Your task to perform on an android device: Search for macbook on newegg.com, select the first entry, add it to the cart, then select checkout. Image 0: 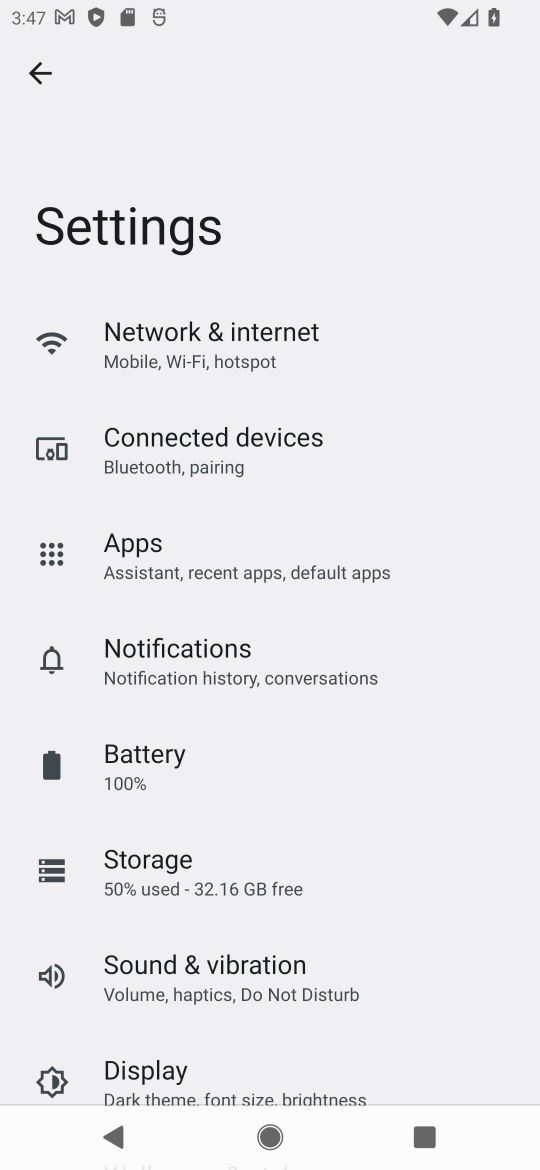
Step 0: press home button
Your task to perform on an android device: Search for macbook on newegg.com, select the first entry, add it to the cart, then select checkout. Image 1: 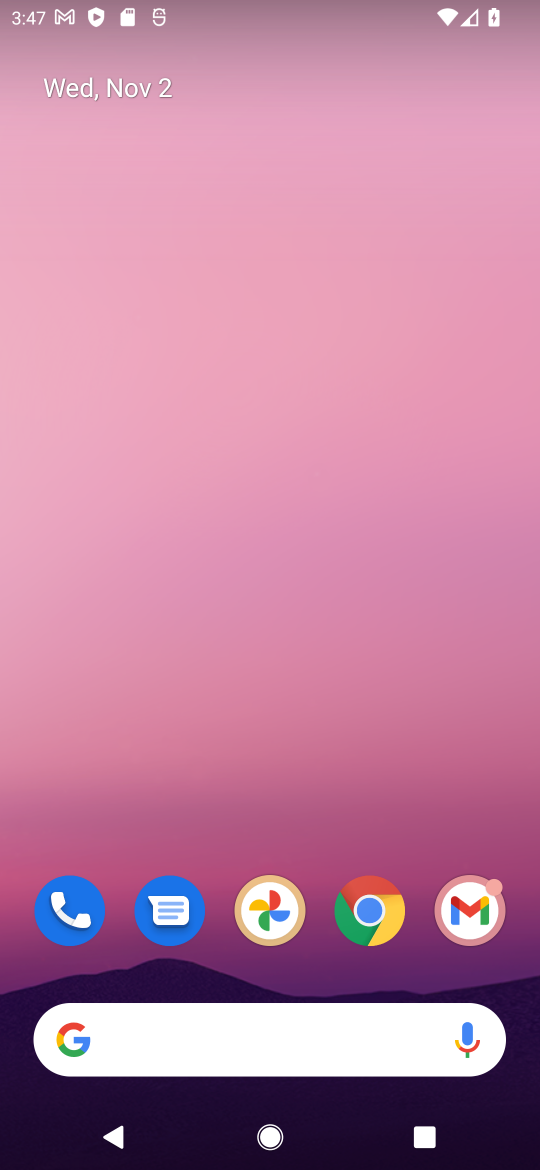
Step 1: press home button
Your task to perform on an android device: Search for macbook on newegg.com, select the first entry, add it to the cart, then select checkout. Image 2: 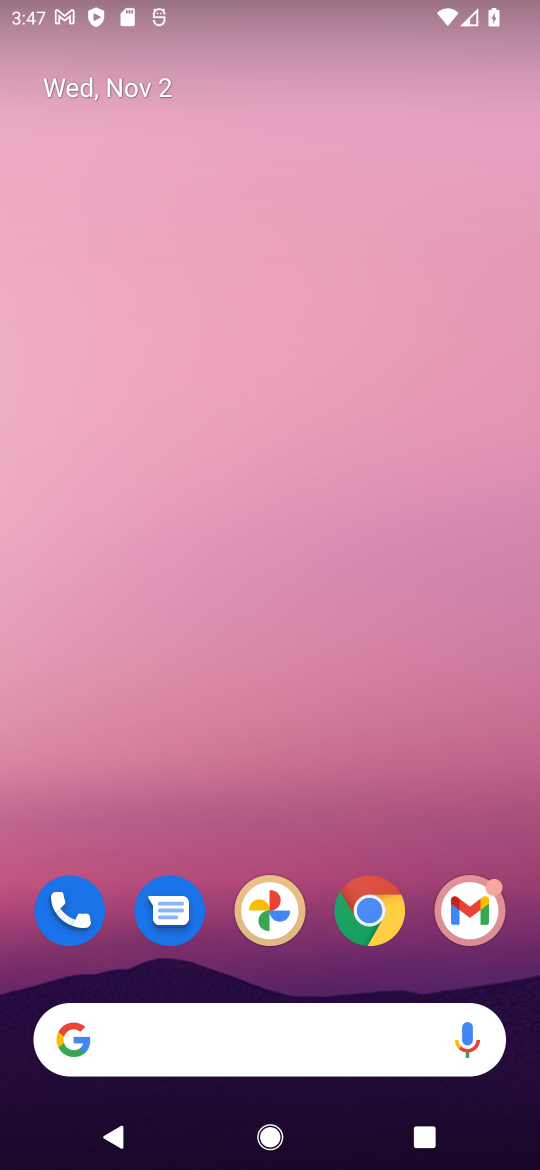
Step 2: click (377, 887)
Your task to perform on an android device: Search for macbook on newegg.com, select the first entry, add it to the cart, then select checkout. Image 3: 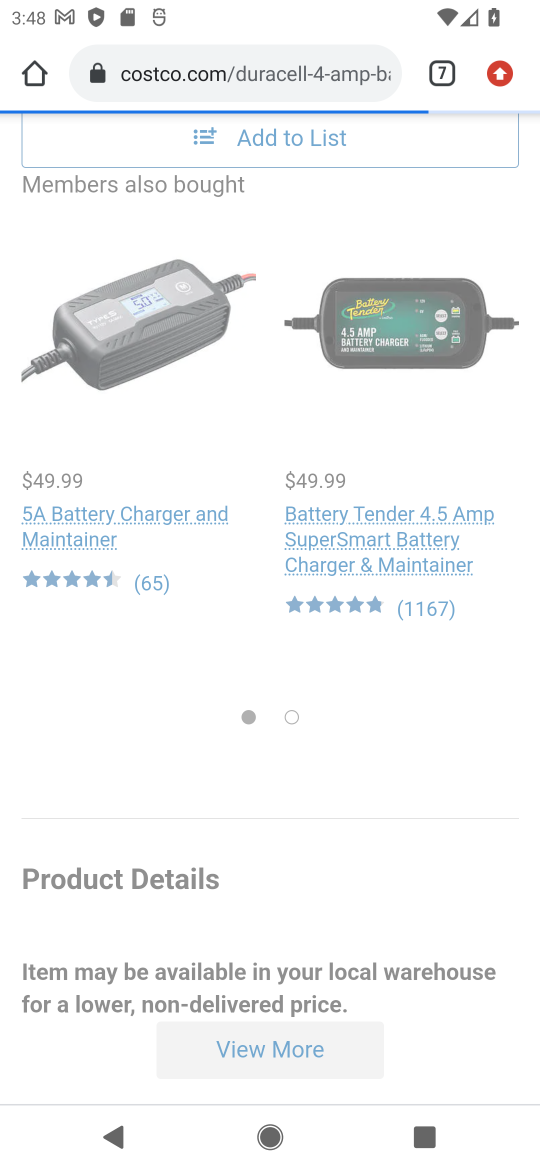
Step 3: click (441, 82)
Your task to perform on an android device: Search for macbook on newegg.com, select the first entry, add it to the cart, then select checkout. Image 4: 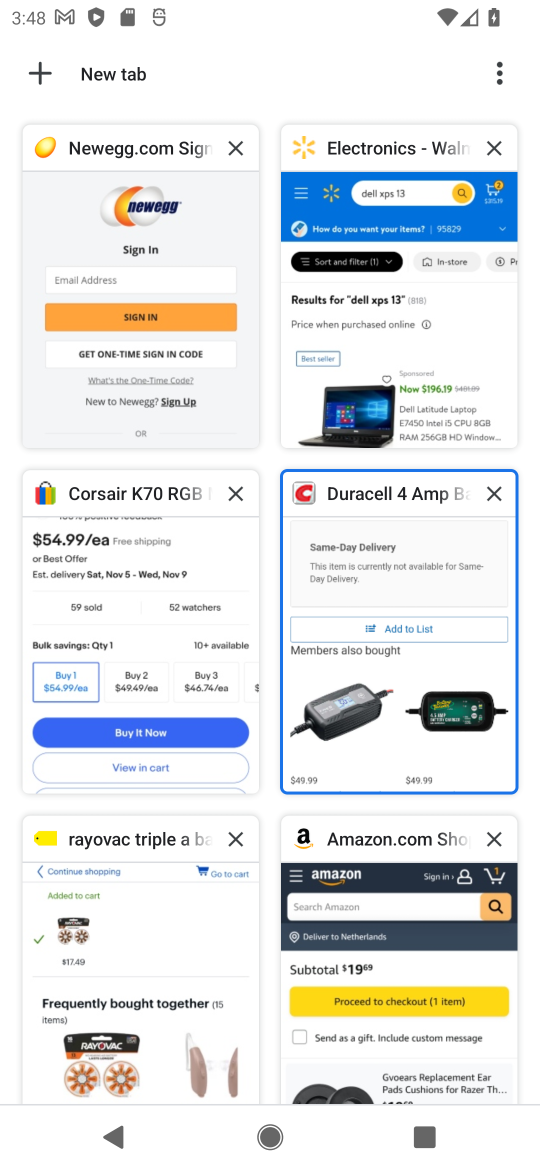
Step 4: click (175, 252)
Your task to perform on an android device: Search for macbook on newegg.com, select the first entry, add it to the cart, then select checkout. Image 5: 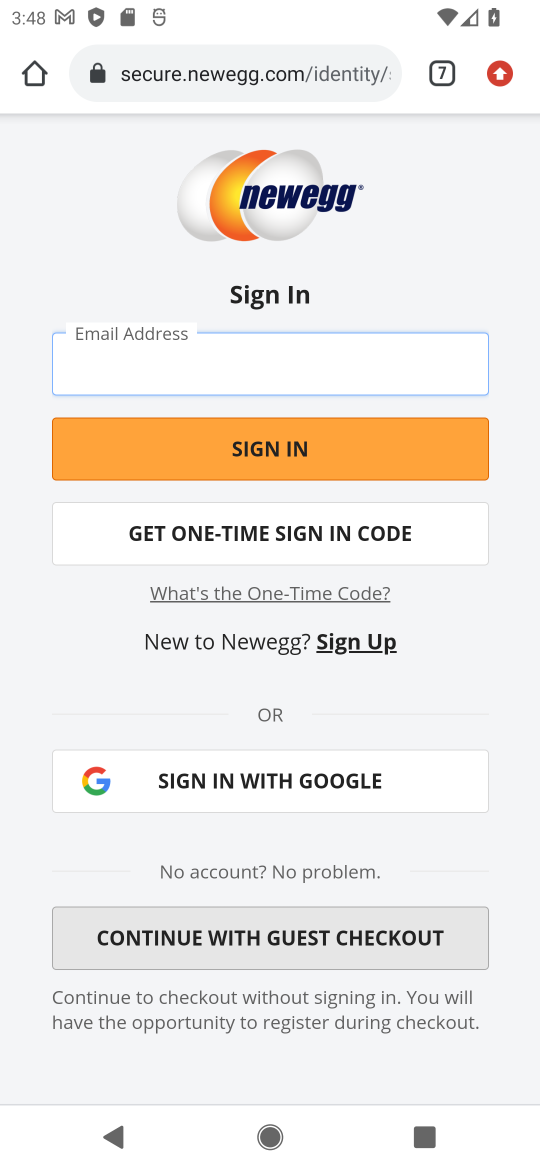
Step 5: press back button
Your task to perform on an android device: Search for macbook on newegg.com, select the first entry, add it to the cart, then select checkout. Image 6: 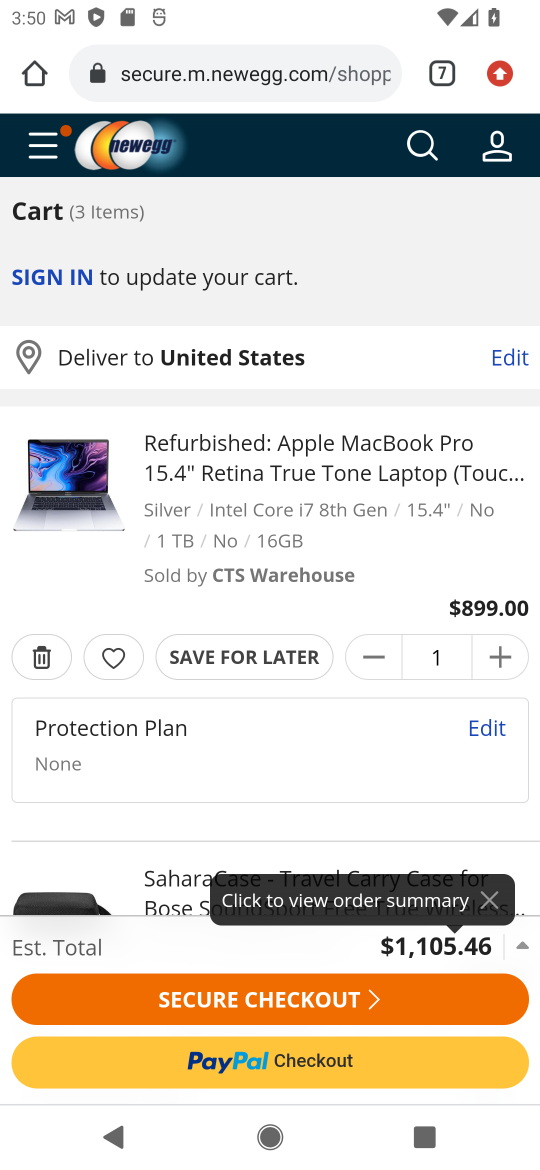
Step 6: click (420, 142)
Your task to perform on an android device: Search for macbook on newegg.com, select the first entry, add it to the cart, then select checkout. Image 7: 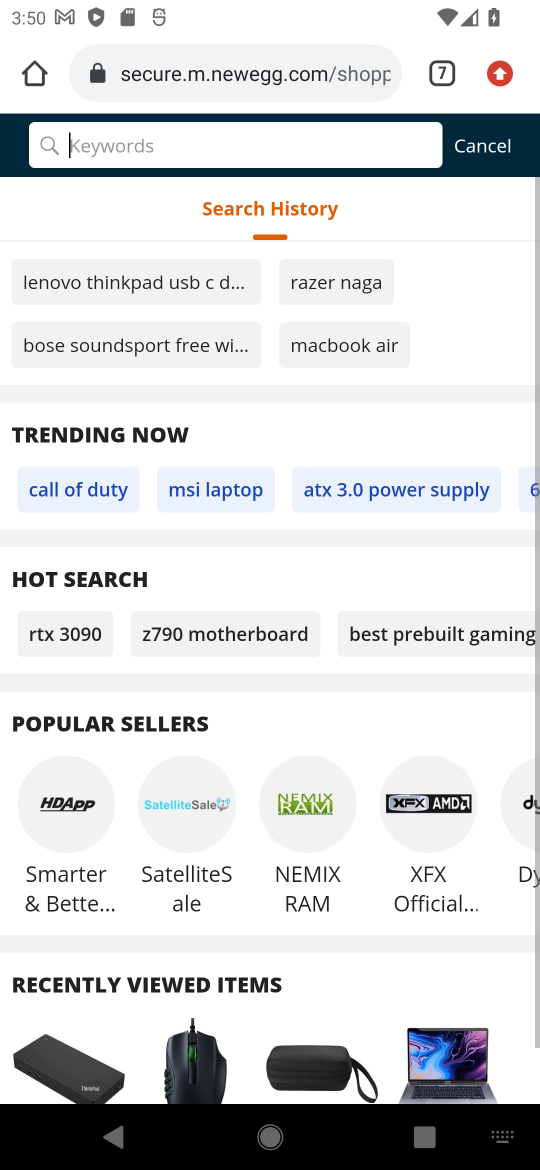
Step 7: type "macbook"
Your task to perform on an android device: Search for macbook on newegg.com, select the first entry, add it to the cart, then select checkout. Image 8: 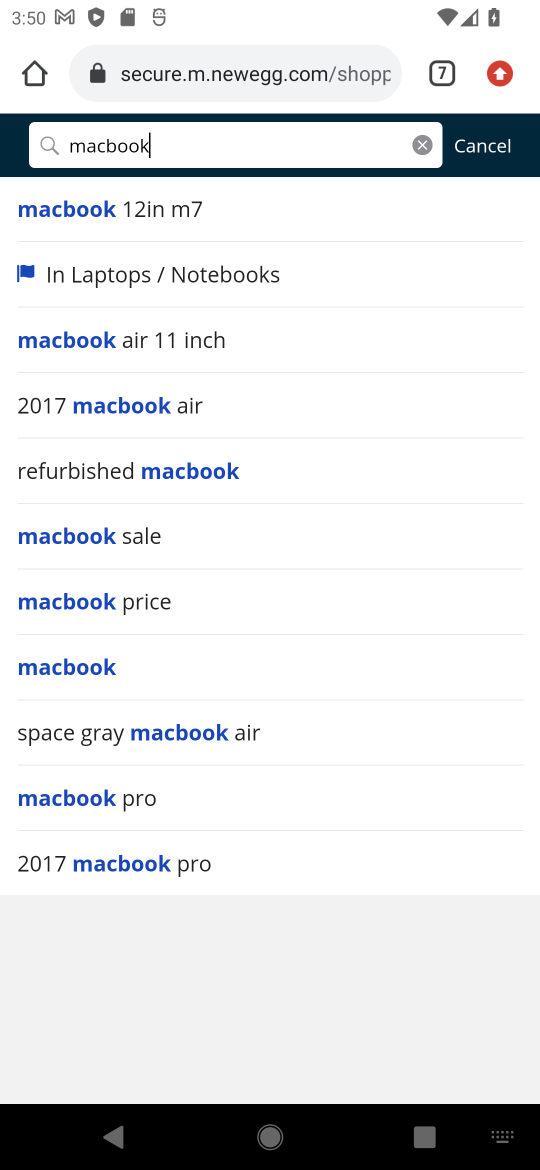
Step 8: click (95, 276)
Your task to perform on an android device: Search for macbook on newegg.com, select the first entry, add it to the cart, then select checkout. Image 9: 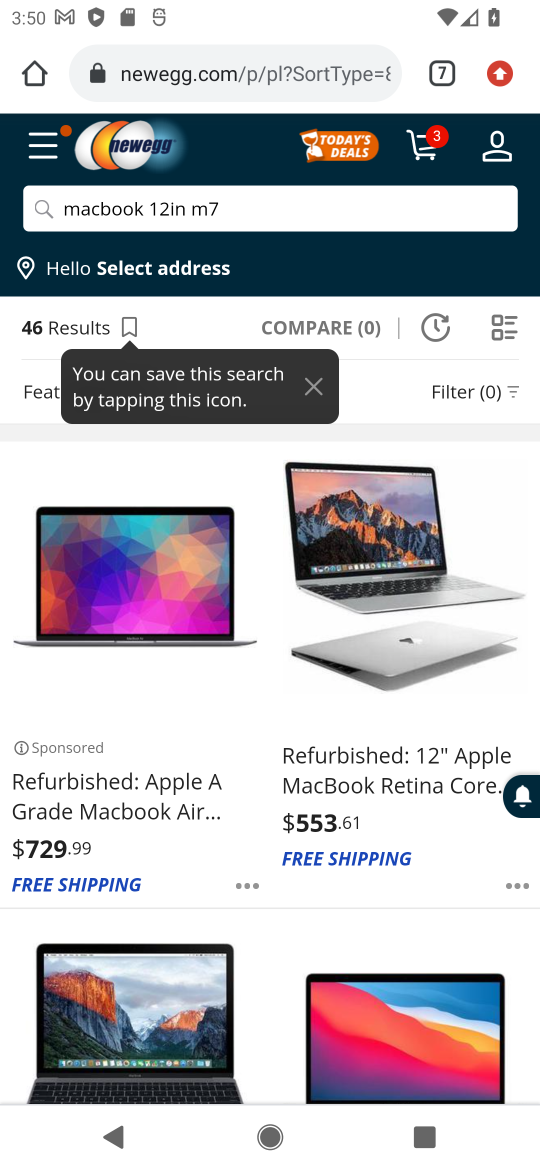
Step 9: click (161, 792)
Your task to perform on an android device: Search for macbook on newegg.com, select the first entry, add it to the cart, then select checkout. Image 10: 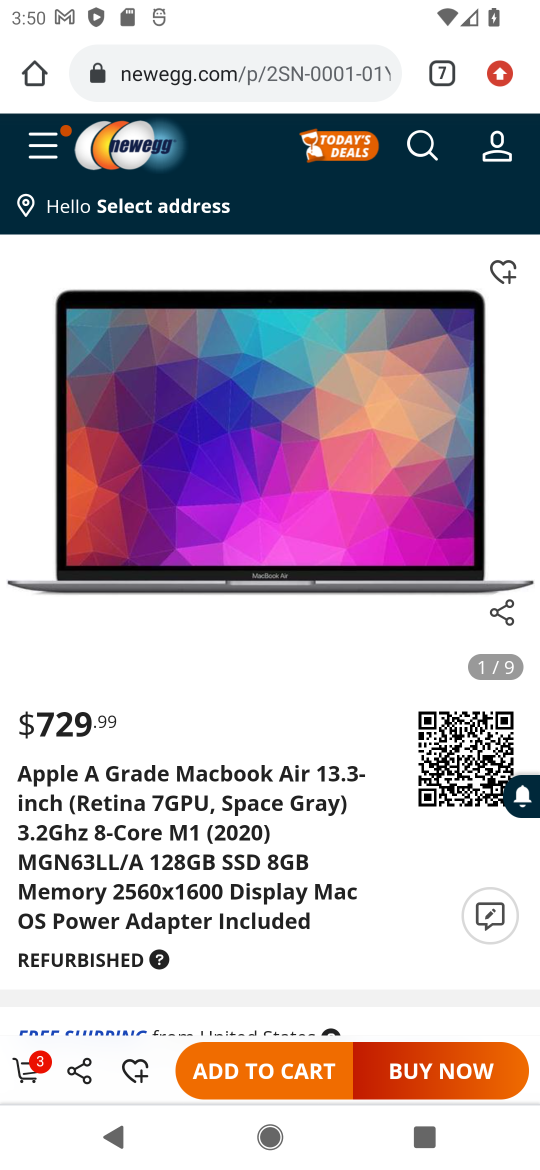
Step 10: click (281, 1076)
Your task to perform on an android device: Search for macbook on newegg.com, select the first entry, add it to the cart, then select checkout. Image 11: 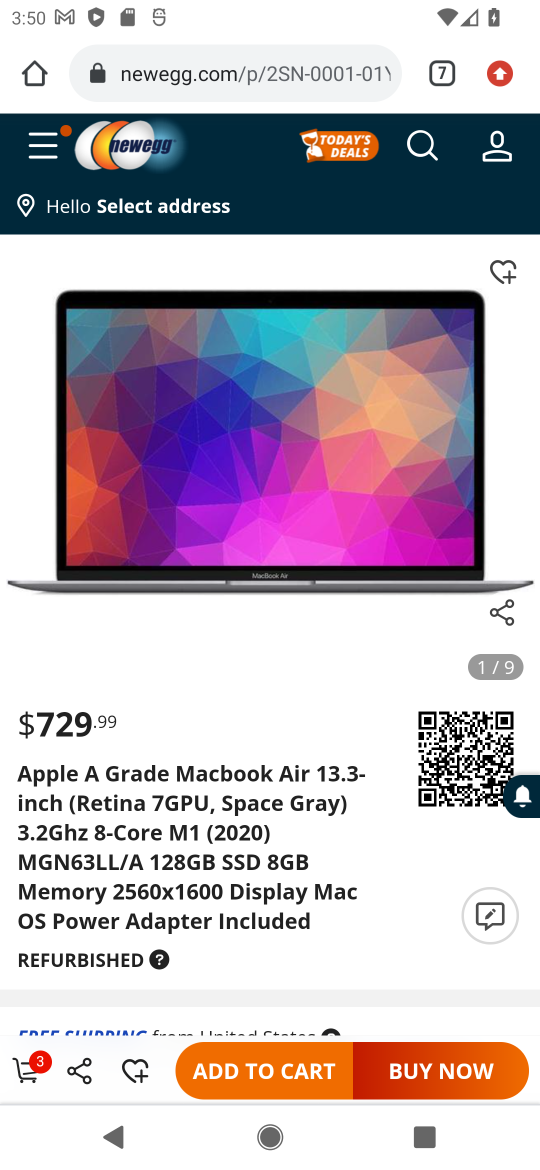
Step 11: click (29, 1075)
Your task to perform on an android device: Search for macbook on newegg.com, select the first entry, add it to the cart, then select checkout. Image 12: 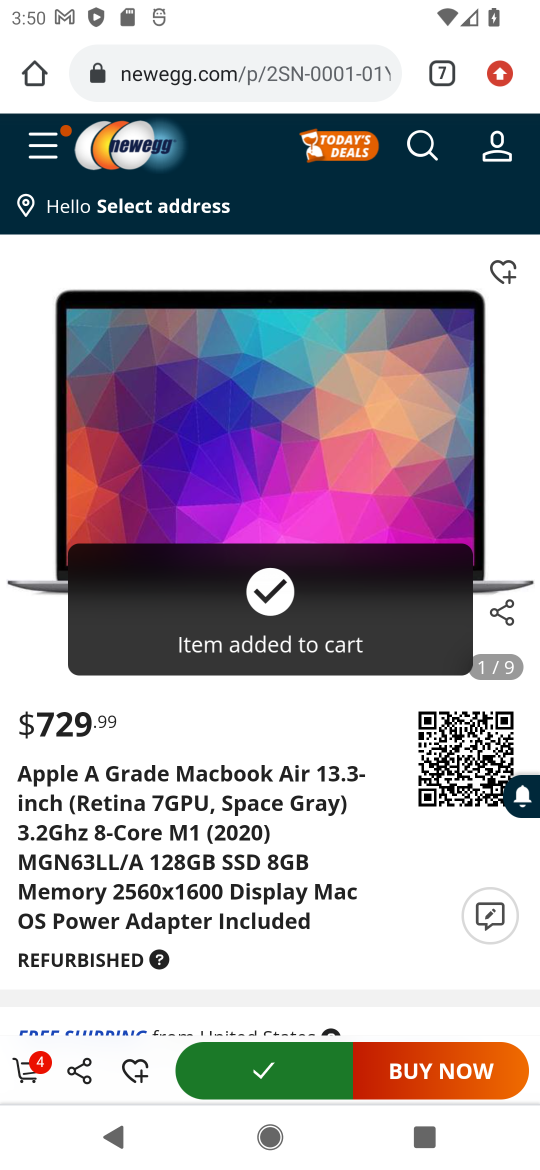
Step 12: click (29, 1075)
Your task to perform on an android device: Search for macbook on newegg.com, select the first entry, add it to the cart, then select checkout. Image 13: 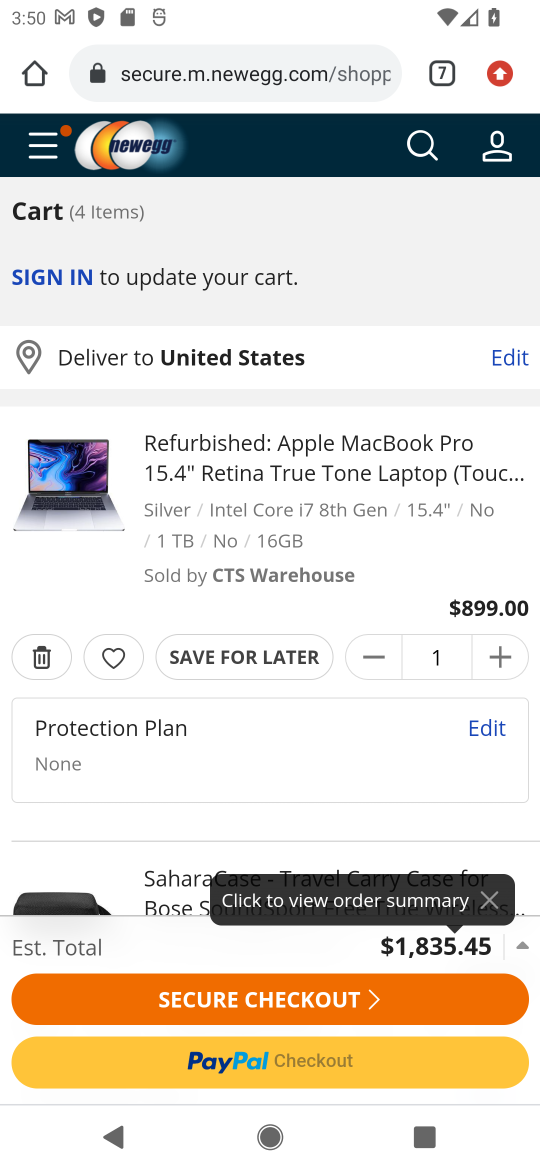
Step 13: click (286, 1006)
Your task to perform on an android device: Search for macbook on newegg.com, select the first entry, add it to the cart, then select checkout. Image 14: 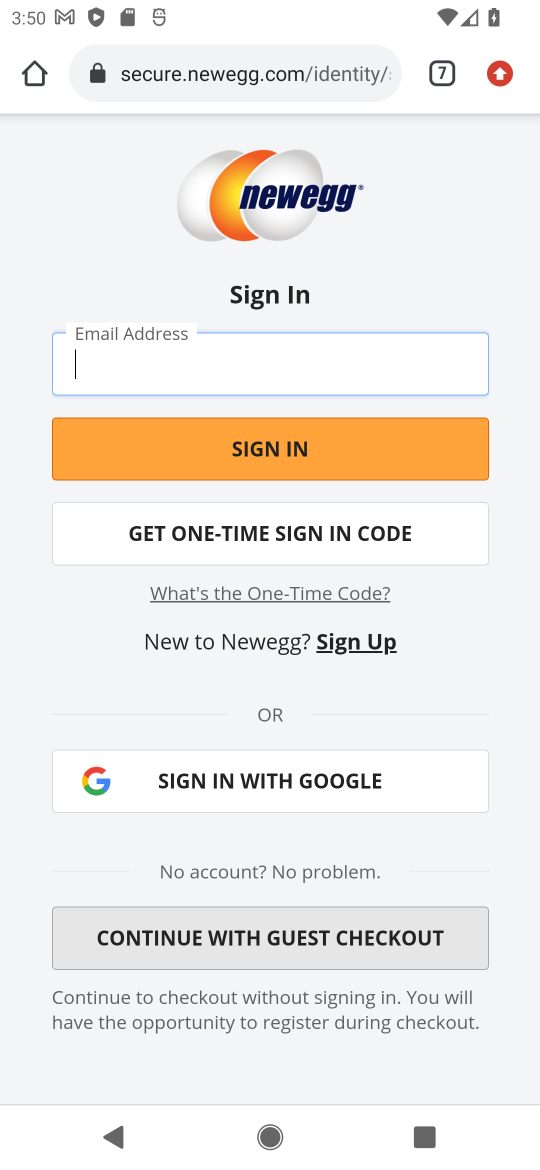
Step 14: task complete